Your task to perform on an android device: turn on improve location accuracy Image 0: 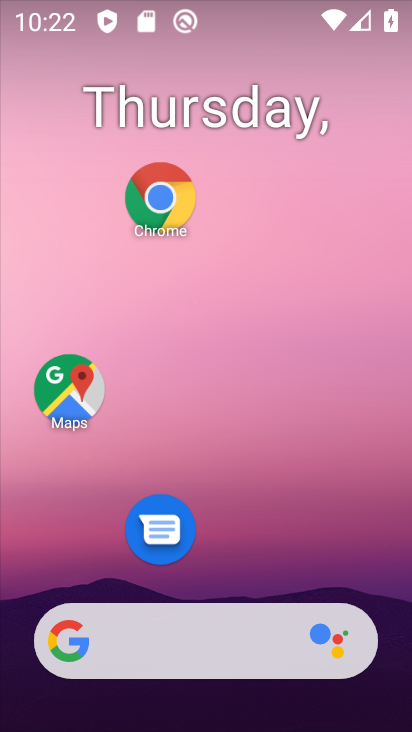
Step 0: drag from (335, 507) to (254, 110)
Your task to perform on an android device: turn on improve location accuracy Image 1: 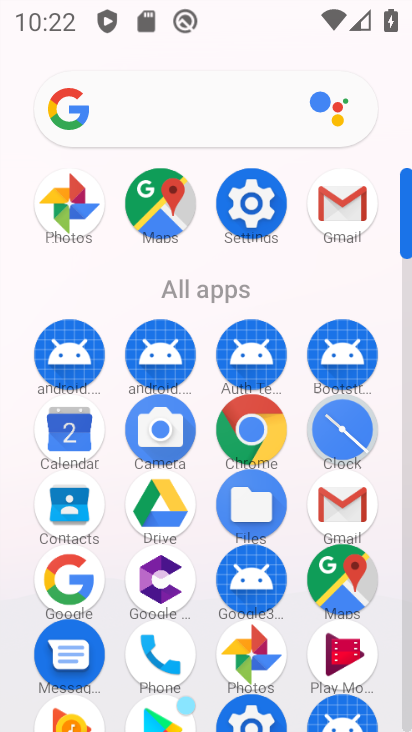
Step 1: click (258, 203)
Your task to perform on an android device: turn on improve location accuracy Image 2: 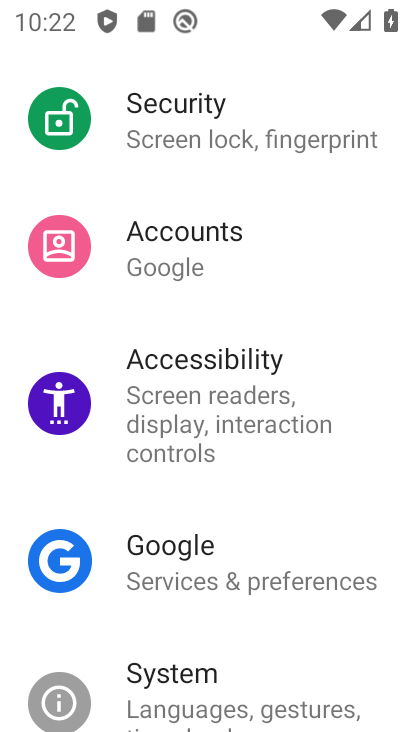
Step 2: drag from (287, 223) to (251, 728)
Your task to perform on an android device: turn on improve location accuracy Image 3: 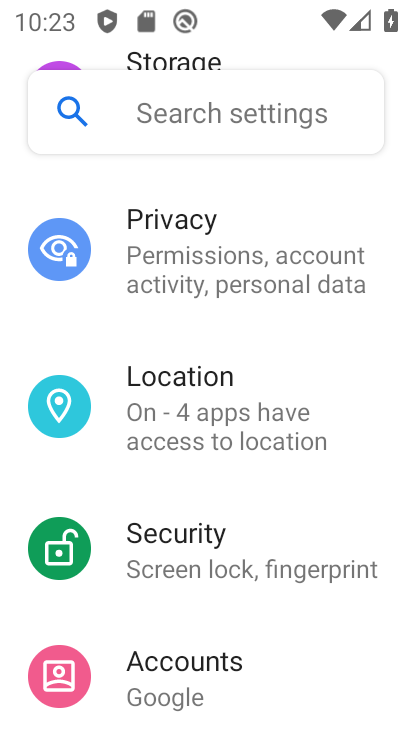
Step 3: click (179, 357)
Your task to perform on an android device: turn on improve location accuracy Image 4: 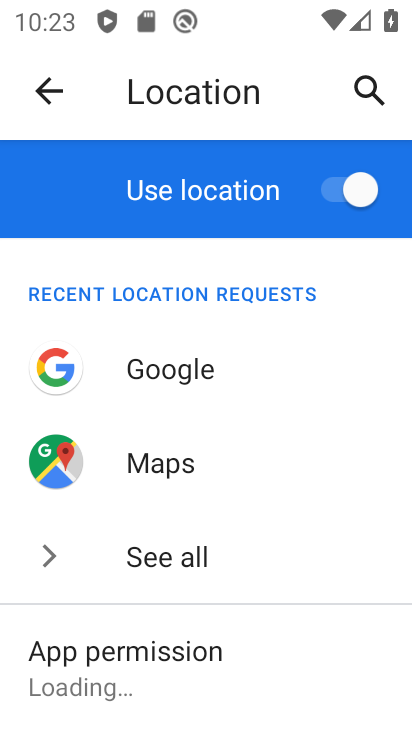
Step 4: drag from (261, 594) to (230, 165)
Your task to perform on an android device: turn on improve location accuracy Image 5: 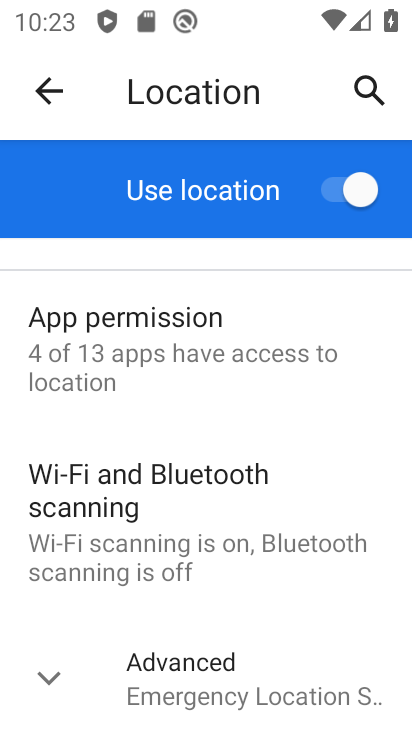
Step 5: click (46, 678)
Your task to perform on an android device: turn on improve location accuracy Image 6: 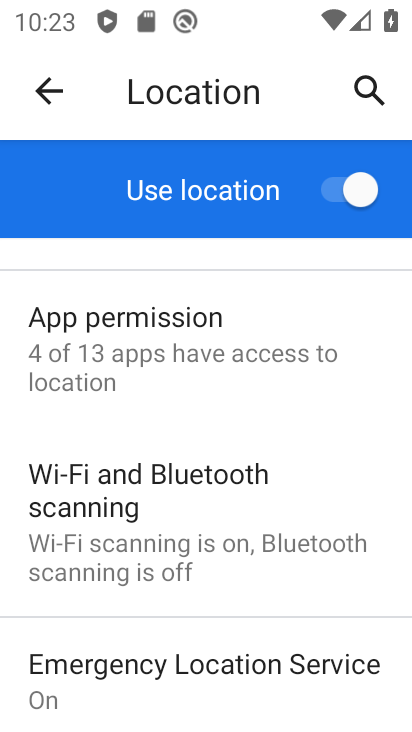
Step 6: drag from (166, 612) to (157, 234)
Your task to perform on an android device: turn on improve location accuracy Image 7: 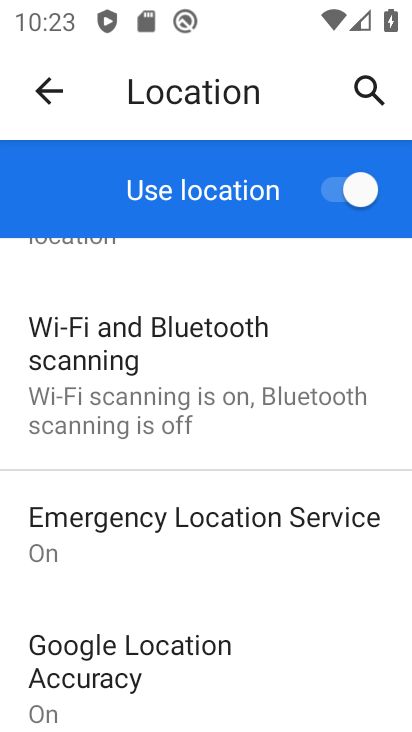
Step 7: click (110, 672)
Your task to perform on an android device: turn on improve location accuracy Image 8: 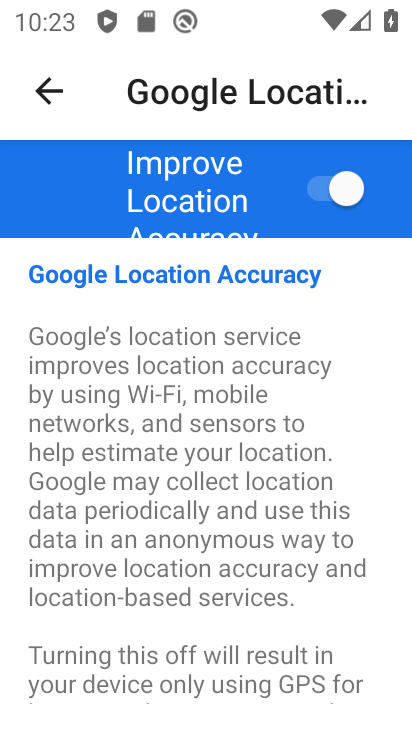
Step 8: task complete